Your task to perform on an android device: Open the map Image 0: 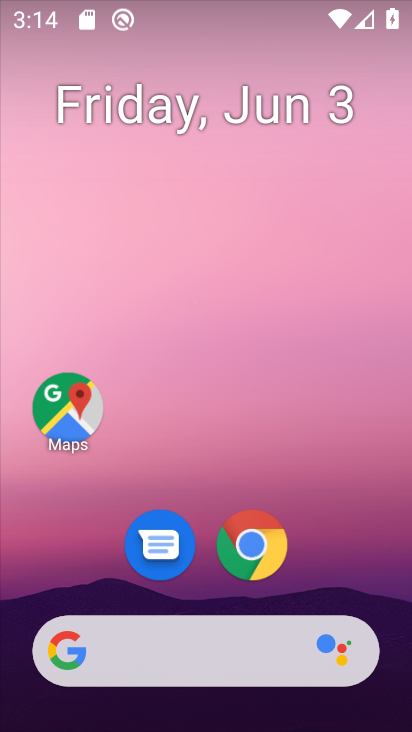
Step 0: drag from (100, 642) to (264, 130)
Your task to perform on an android device: Open the map Image 1: 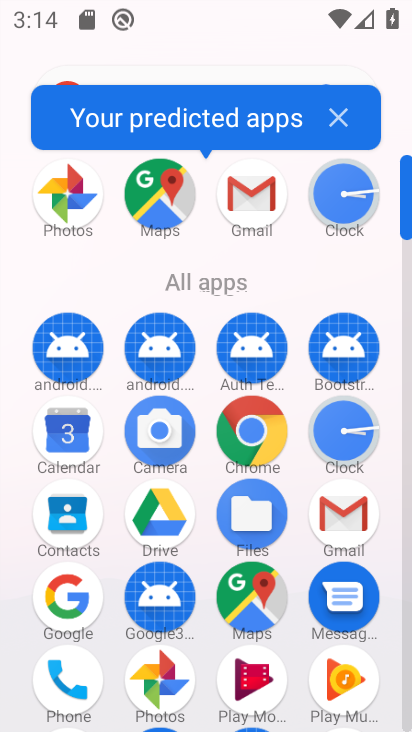
Step 1: drag from (195, 570) to (238, 431)
Your task to perform on an android device: Open the map Image 2: 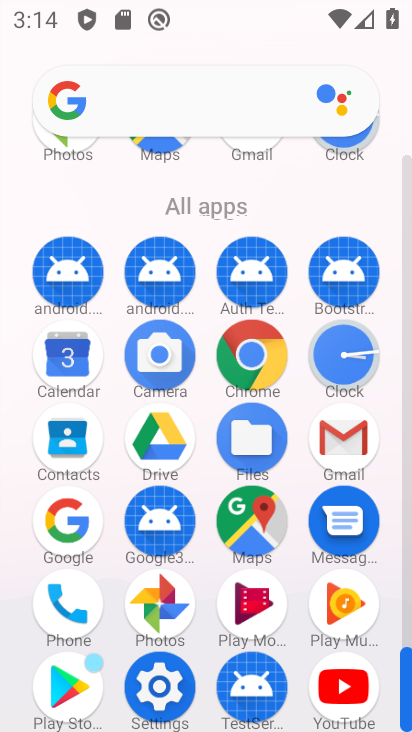
Step 2: click (236, 539)
Your task to perform on an android device: Open the map Image 3: 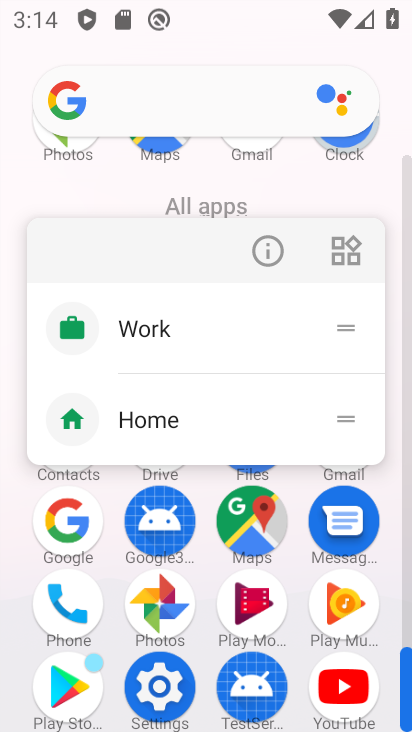
Step 3: click (250, 525)
Your task to perform on an android device: Open the map Image 4: 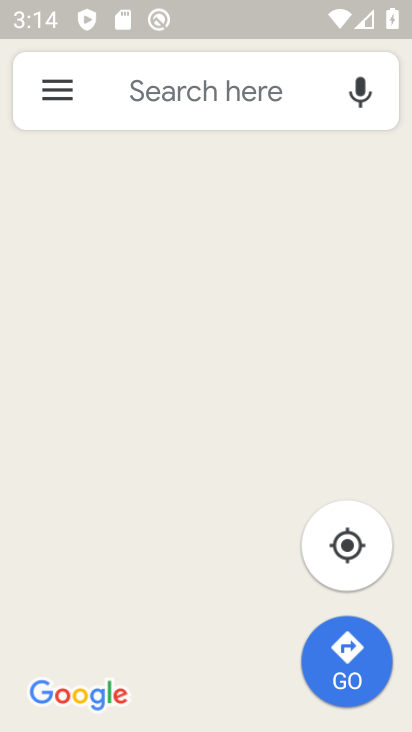
Step 4: task complete